Your task to perform on an android device: Open Chrome and go to the settings page Image 0: 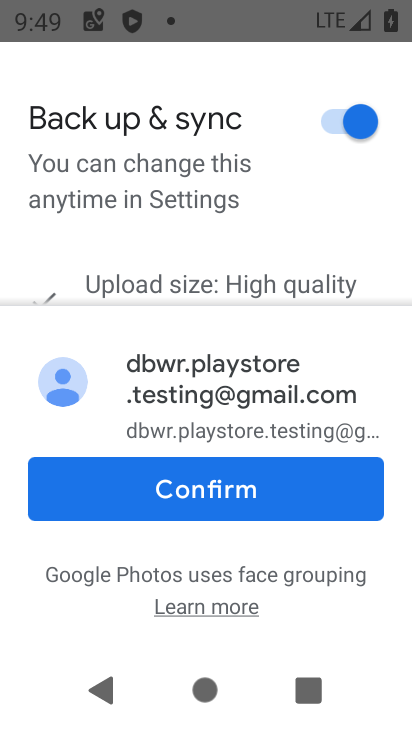
Step 0: press home button
Your task to perform on an android device: Open Chrome and go to the settings page Image 1: 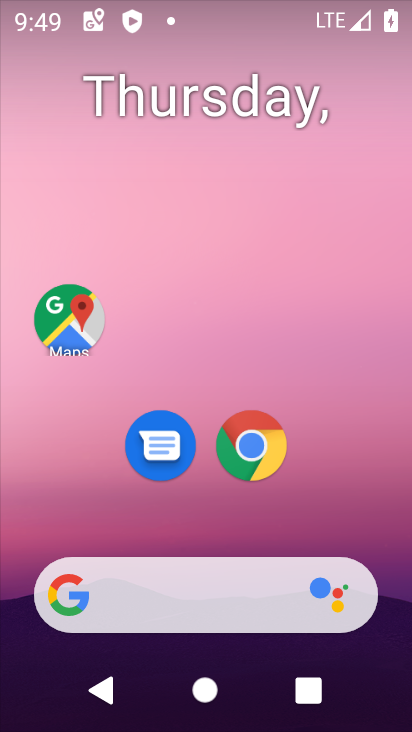
Step 1: drag from (170, 557) to (232, 184)
Your task to perform on an android device: Open Chrome and go to the settings page Image 2: 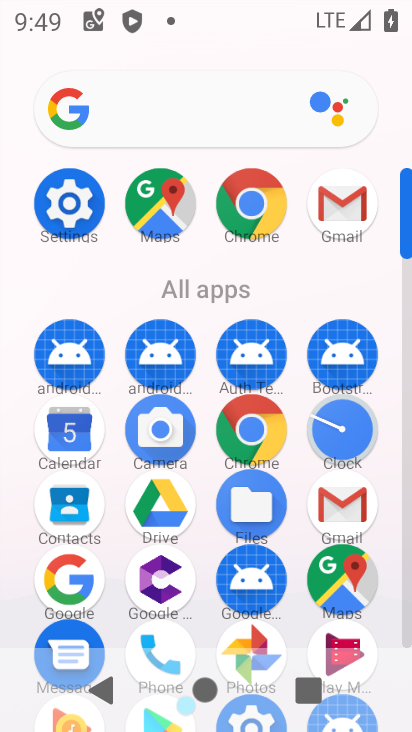
Step 2: click (248, 189)
Your task to perform on an android device: Open Chrome and go to the settings page Image 3: 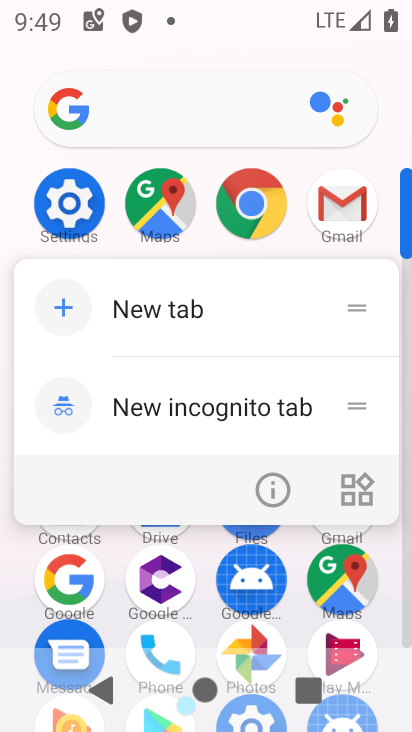
Step 3: click (256, 213)
Your task to perform on an android device: Open Chrome and go to the settings page Image 4: 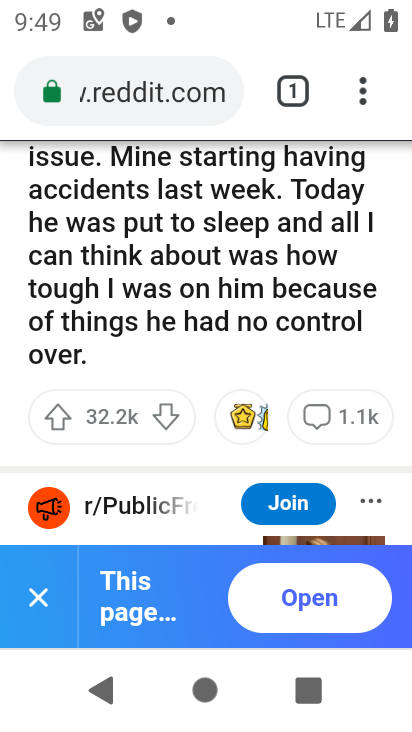
Step 4: drag from (284, 150) to (329, 498)
Your task to perform on an android device: Open Chrome and go to the settings page Image 5: 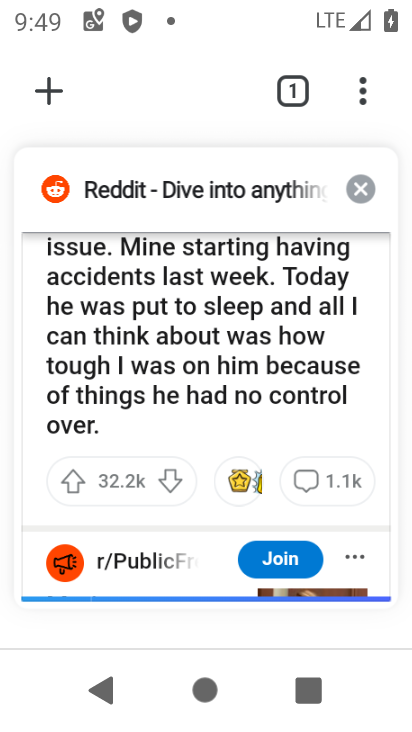
Step 5: drag from (285, 293) to (328, 515)
Your task to perform on an android device: Open Chrome and go to the settings page Image 6: 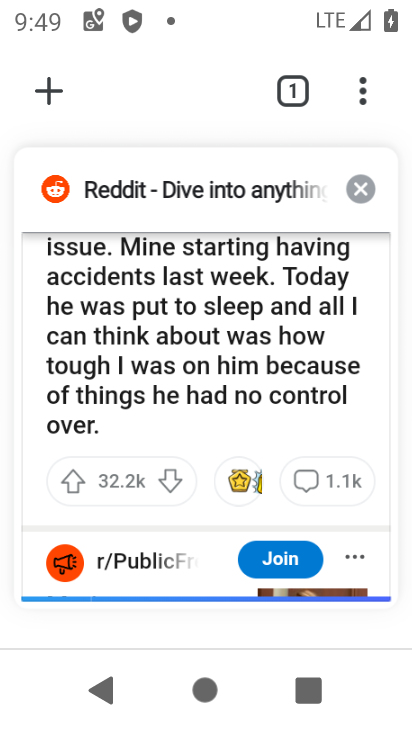
Step 6: click (362, 91)
Your task to perform on an android device: Open Chrome and go to the settings page Image 7: 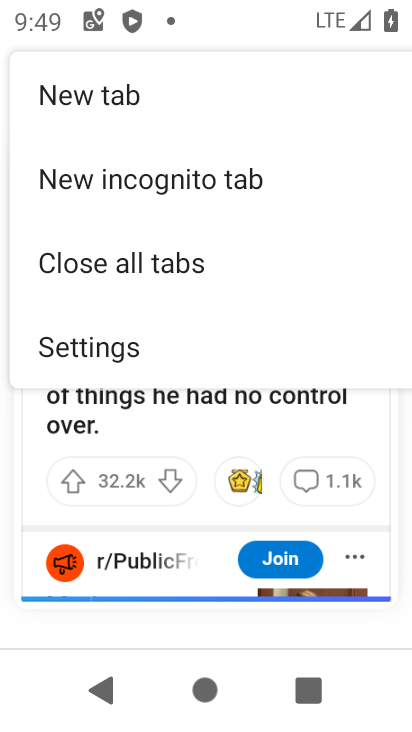
Step 7: click (139, 347)
Your task to perform on an android device: Open Chrome and go to the settings page Image 8: 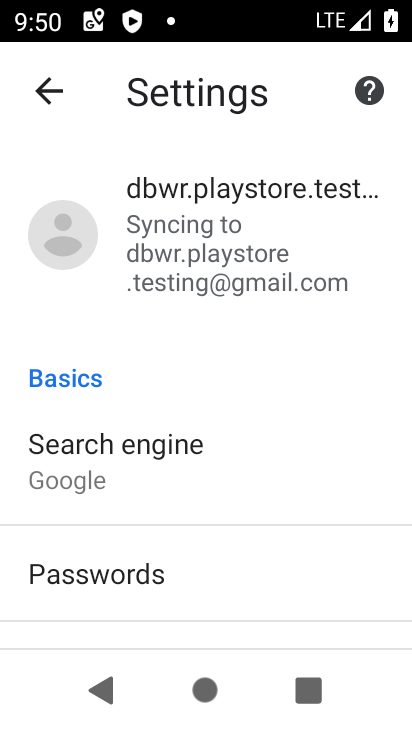
Step 8: task complete